Your task to perform on an android device: Open the web browser Image 0: 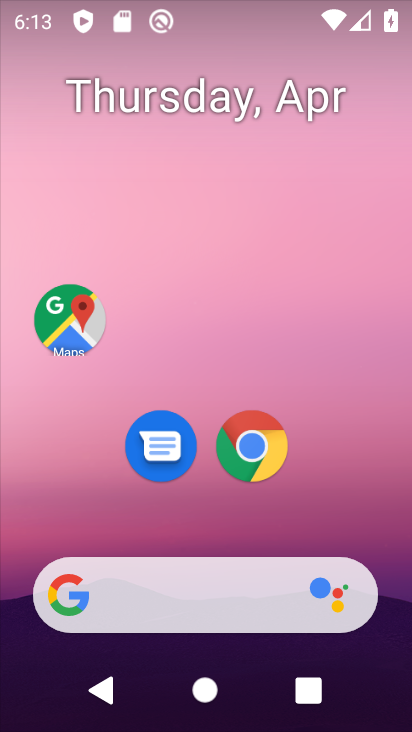
Step 0: press back button
Your task to perform on an android device: Open the web browser Image 1: 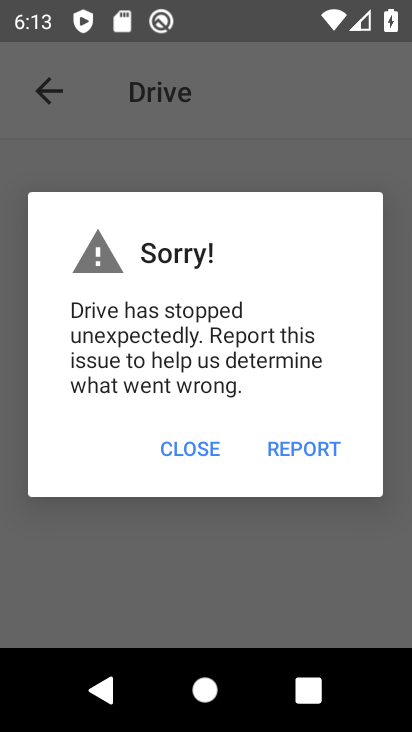
Step 1: press home button
Your task to perform on an android device: Open the web browser Image 2: 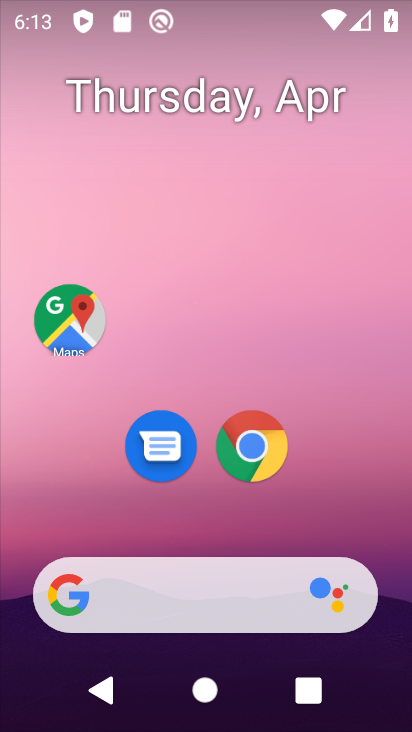
Step 2: click (252, 449)
Your task to perform on an android device: Open the web browser Image 3: 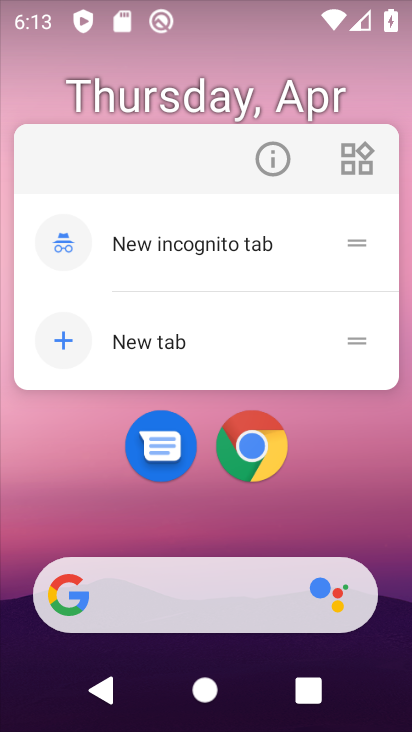
Step 3: click (250, 449)
Your task to perform on an android device: Open the web browser Image 4: 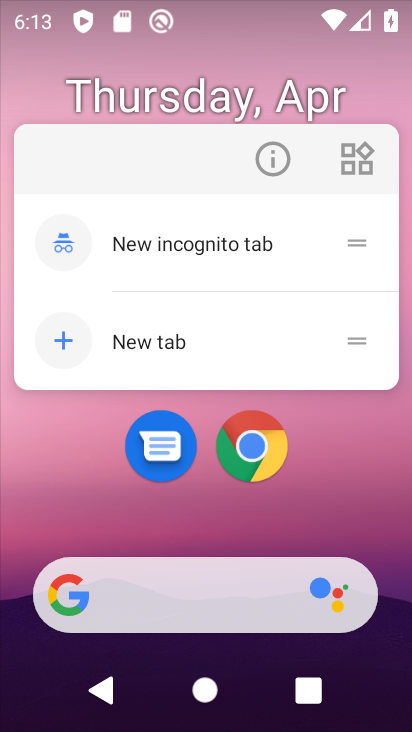
Step 4: click (262, 454)
Your task to perform on an android device: Open the web browser Image 5: 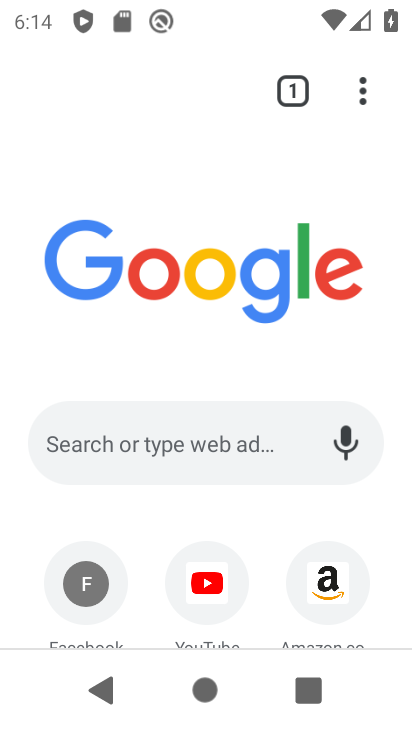
Step 5: task complete